Your task to perform on an android device: add a contact in the contacts app Image 0: 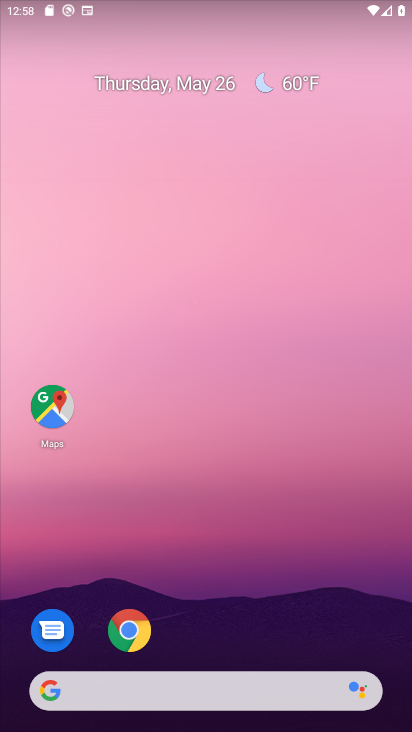
Step 0: drag from (323, 614) to (350, 5)
Your task to perform on an android device: add a contact in the contacts app Image 1: 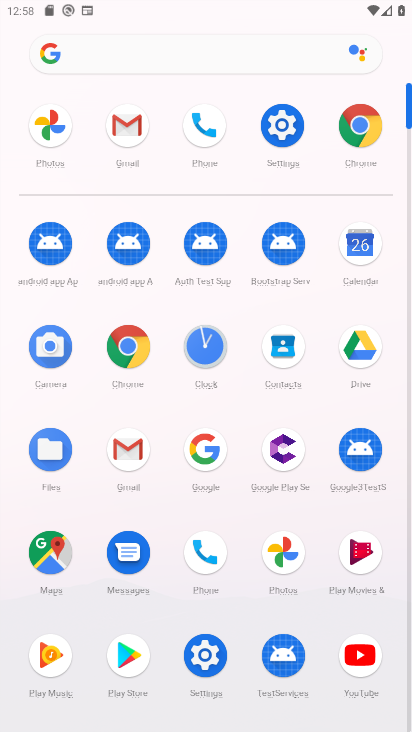
Step 1: click (207, 134)
Your task to perform on an android device: add a contact in the contacts app Image 2: 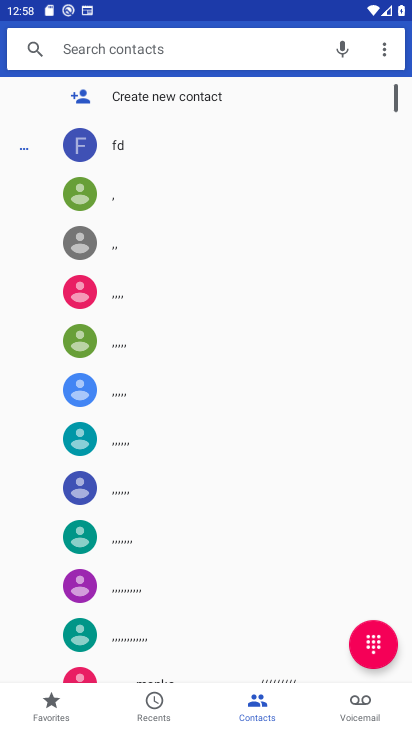
Step 2: click (154, 97)
Your task to perform on an android device: add a contact in the contacts app Image 3: 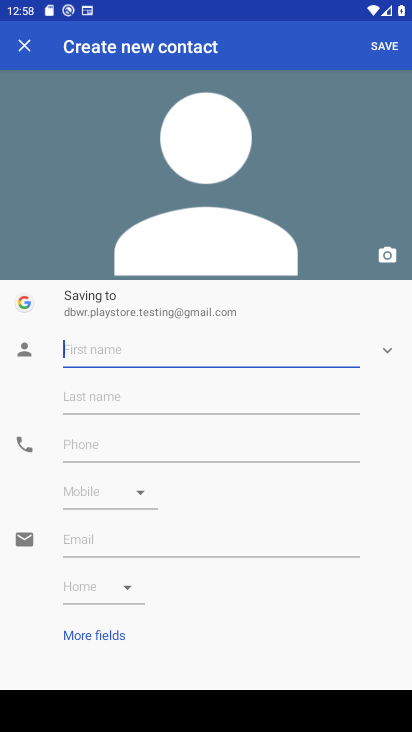
Step 3: type "tyuuu"
Your task to perform on an android device: add a contact in the contacts app Image 4: 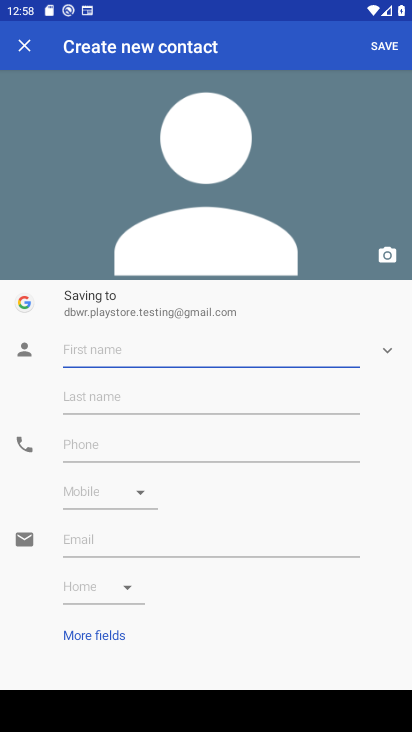
Step 4: click (95, 442)
Your task to perform on an android device: add a contact in the contacts app Image 5: 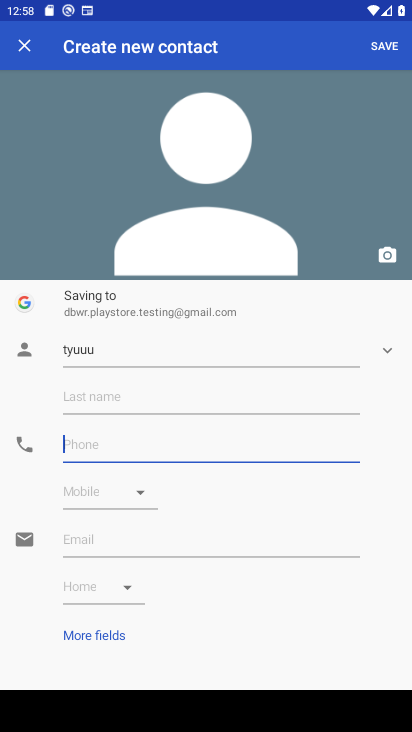
Step 5: type "456789876"
Your task to perform on an android device: add a contact in the contacts app Image 6: 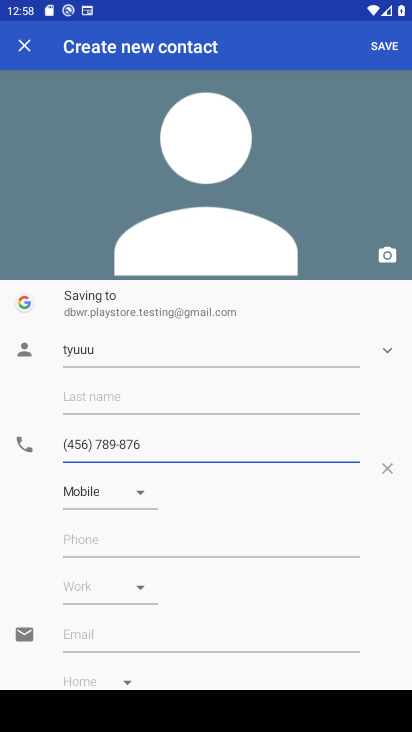
Step 6: click (368, 56)
Your task to perform on an android device: add a contact in the contacts app Image 7: 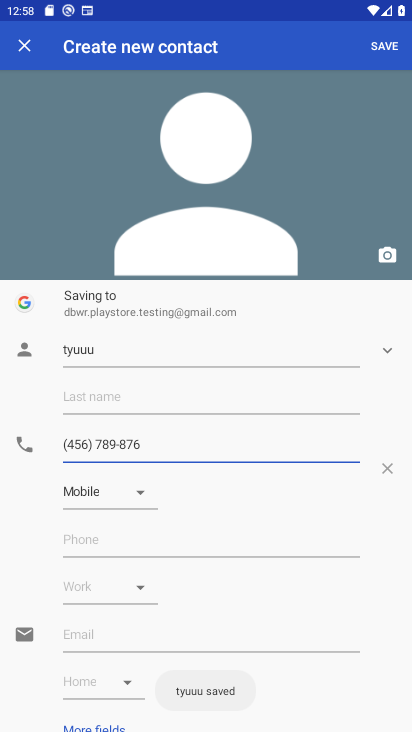
Step 7: click (371, 52)
Your task to perform on an android device: add a contact in the contacts app Image 8: 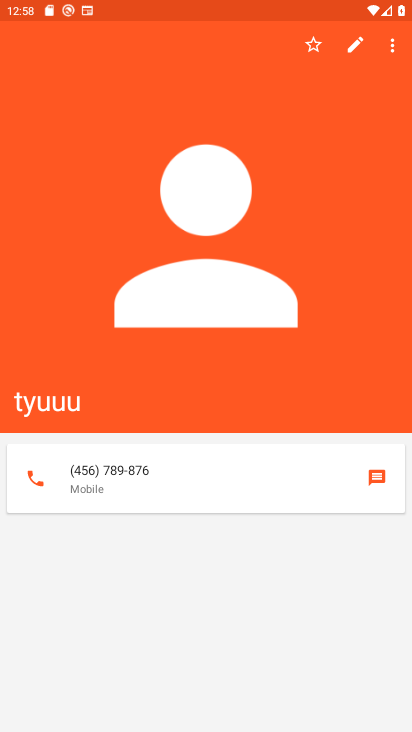
Step 8: task complete